Your task to perform on an android device: delete location history Image 0: 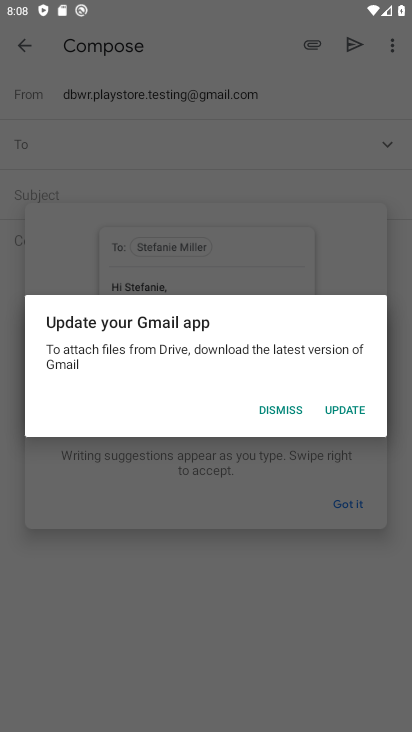
Step 0: press home button
Your task to perform on an android device: delete location history Image 1: 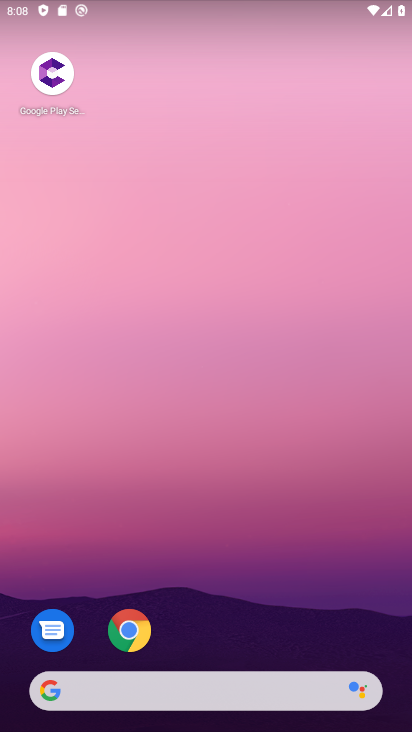
Step 1: drag from (195, 343) to (314, 0)
Your task to perform on an android device: delete location history Image 2: 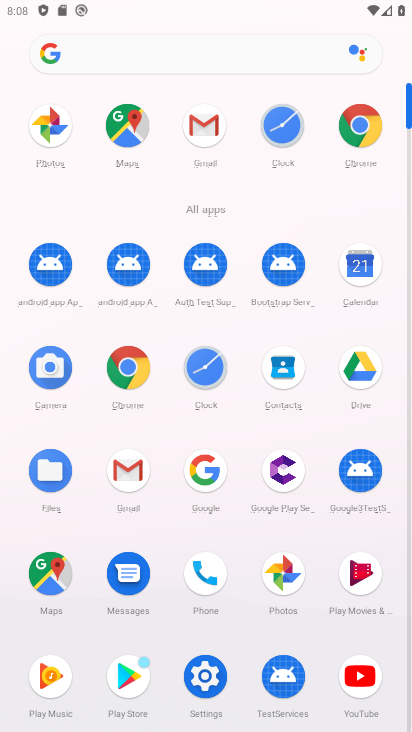
Step 2: click (272, 224)
Your task to perform on an android device: delete location history Image 3: 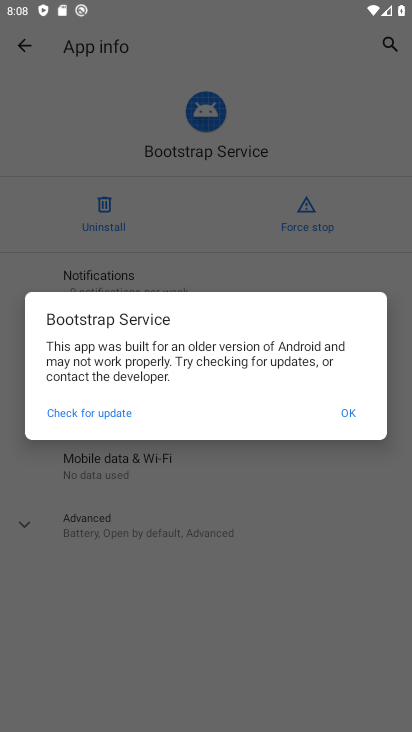
Step 3: press home button
Your task to perform on an android device: delete location history Image 4: 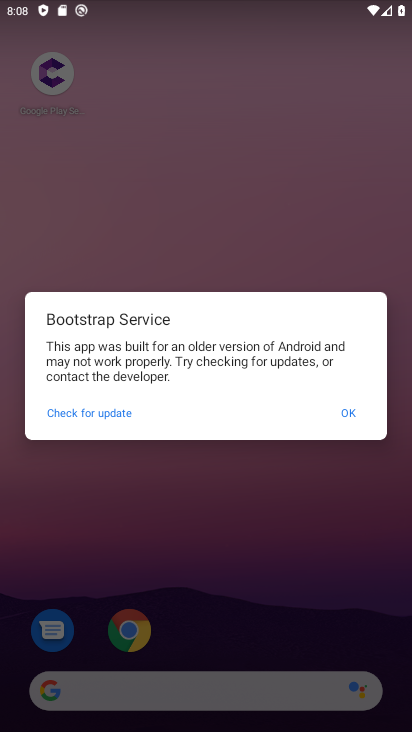
Step 4: click (342, 409)
Your task to perform on an android device: delete location history Image 5: 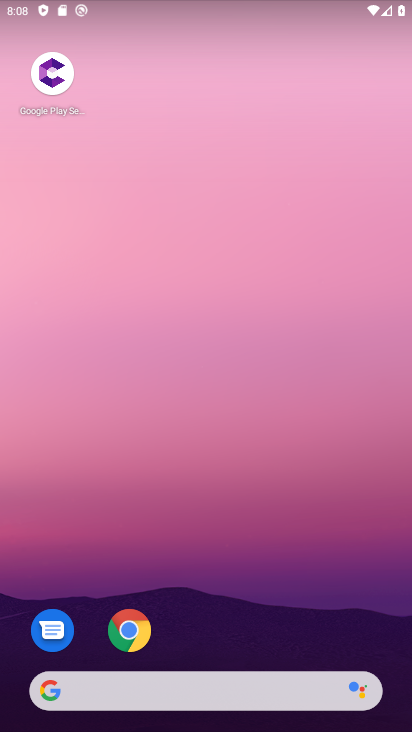
Step 5: drag from (229, 513) to (231, 94)
Your task to perform on an android device: delete location history Image 6: 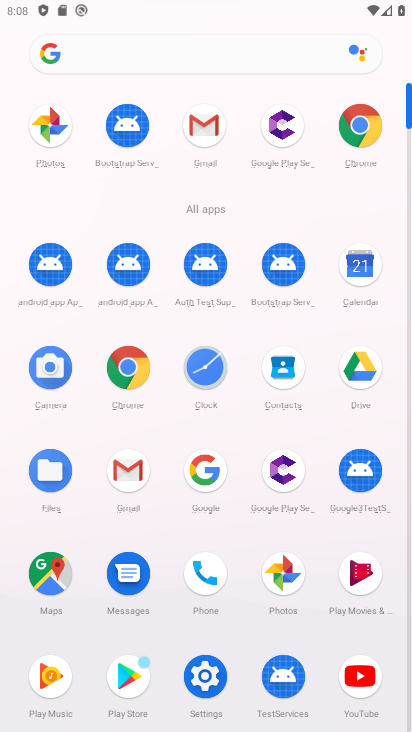
Step 6: click (54, 556)
Your task to perform on an android device: delete location history Image 7: 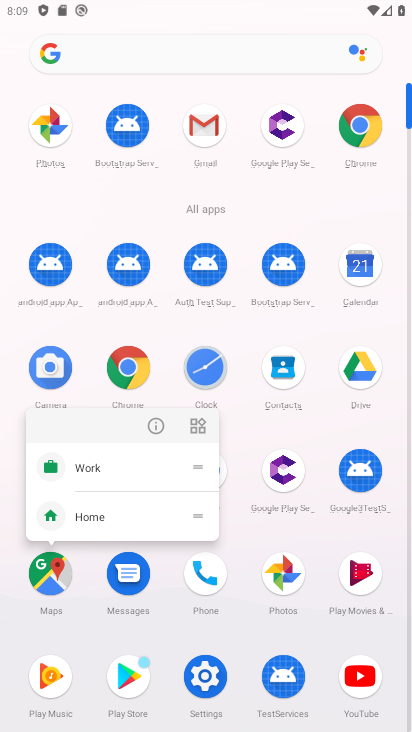
Step 7: click (60, 581)
Your task to perform on an android device: delete location history Image 8: 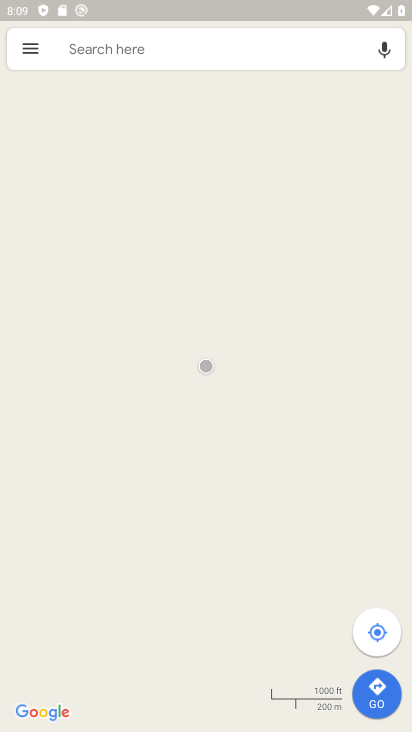
Step 8: click (21, 46)
Your task to perform on an android device: delete location history Image 9: 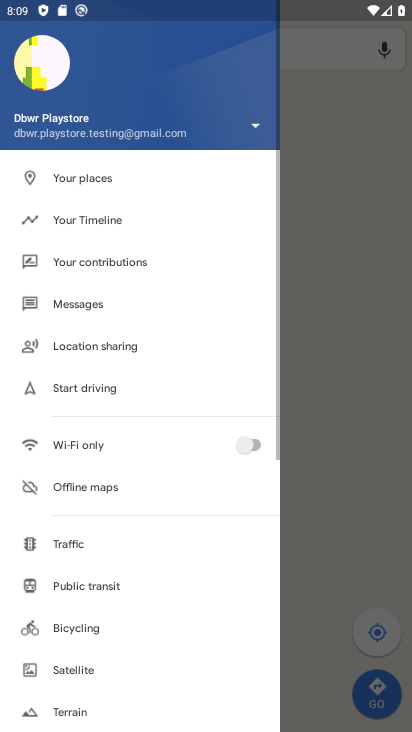
Step 9: click (98, 221)
Your task to perform on an android device: delete location history Image 10: 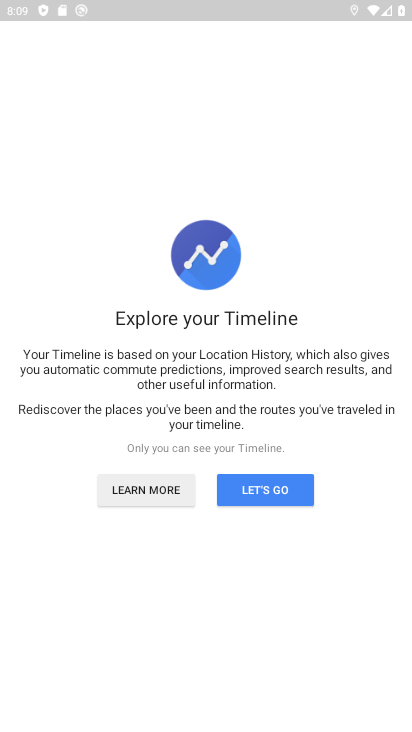
Step 10: click (251, 483)
Your task to perform on an android device: delete location history Image 11: 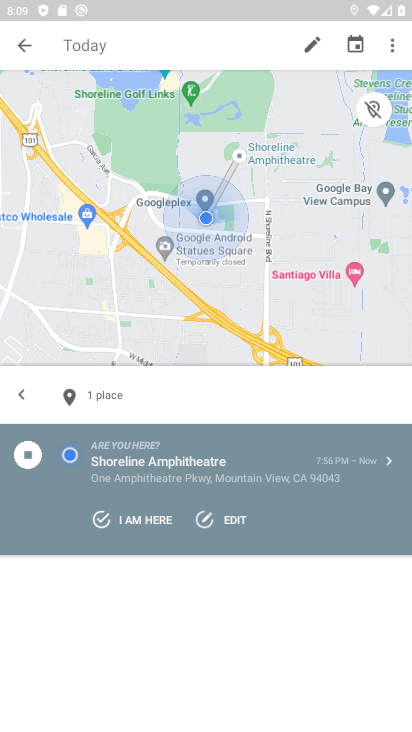
Step 11: click (396, 44)
Your task to perform on an android device: delete location history Image 12: 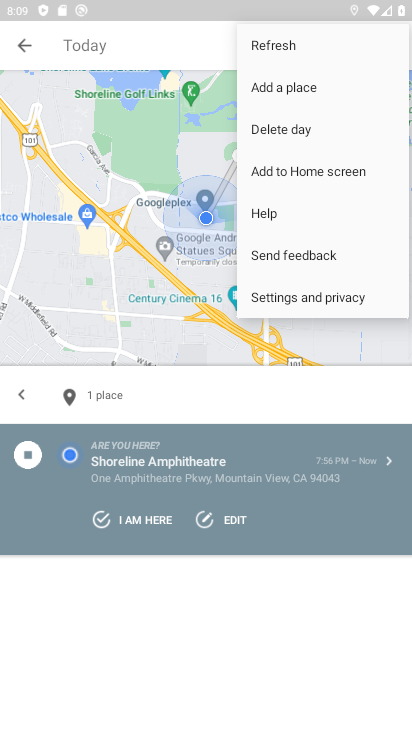
Step 12: click (296, 297)
Your task to perform on an android device: delete location history Image 13: 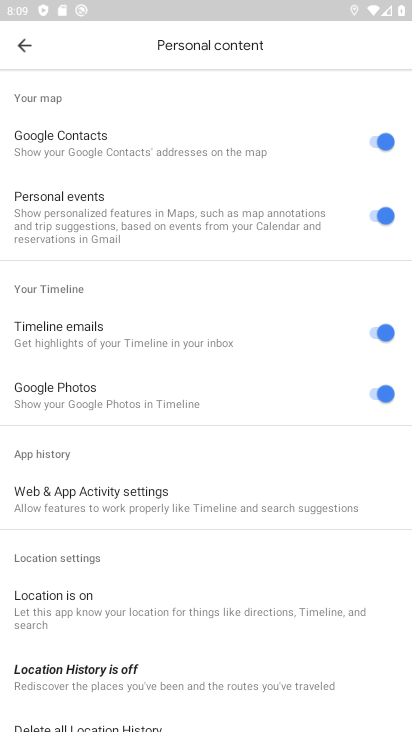
Step 13: drag from (126, 563) to (167, 298)
Your task to perform on an android device: delete location history Image 14: 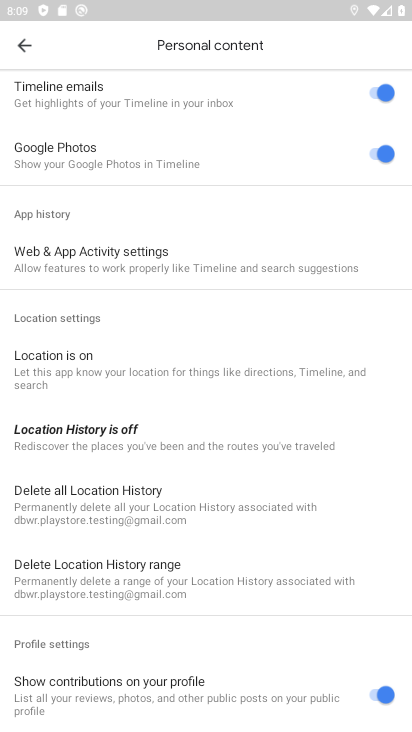
Step 14: drag from (119, 565) to (157, 344)
Your task to perform on an android device: delete location history Image 15: 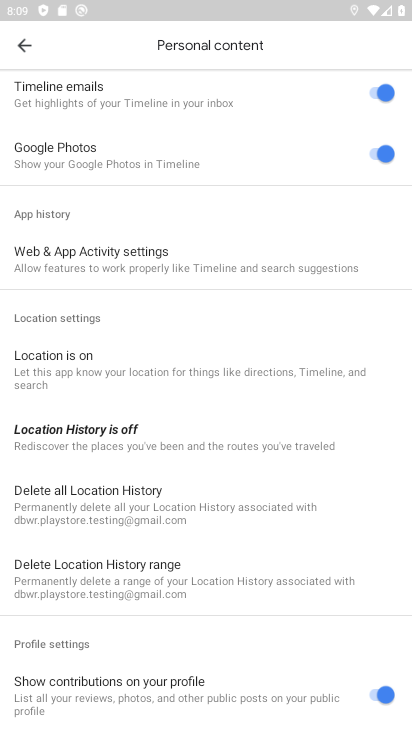
Step 15: click (126, 506)
Your task to perform on an android device: delete location history Image 16: 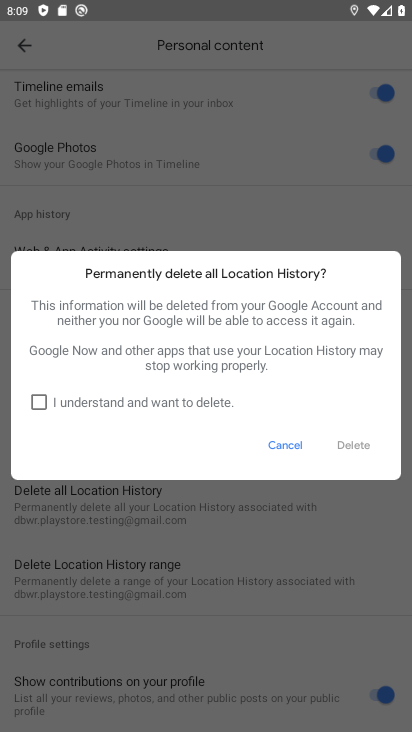
Step 16: click (54, 408)
Your task to perform on an android device: delete location history Image 17: 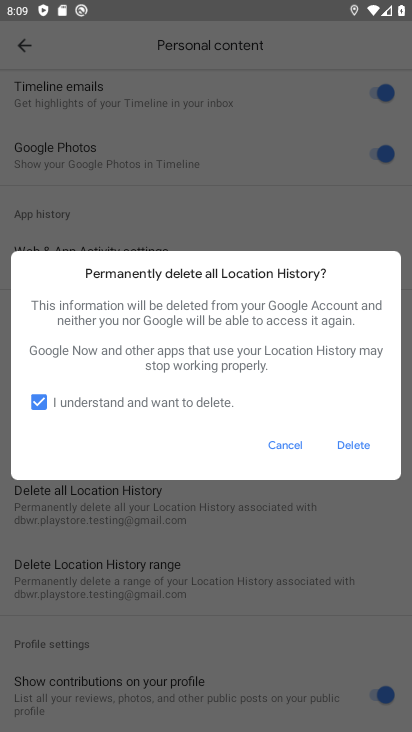
Step 17: click (365, 446)
Your task to perform on an android device: delete location history Image 18: 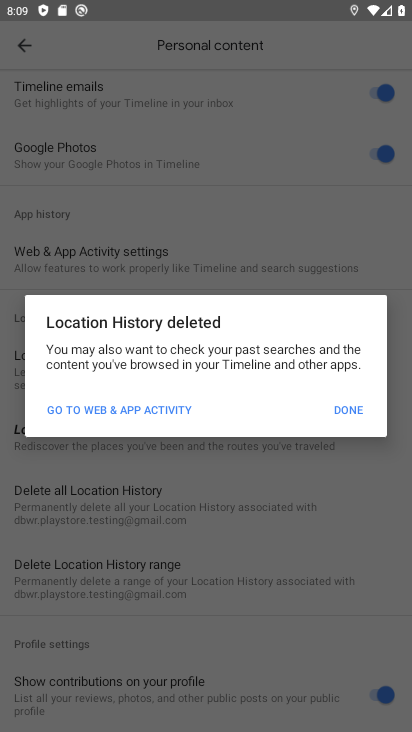
Step 18: click (346, 401)
Your task to perform on an android device: delete location history Image 19: 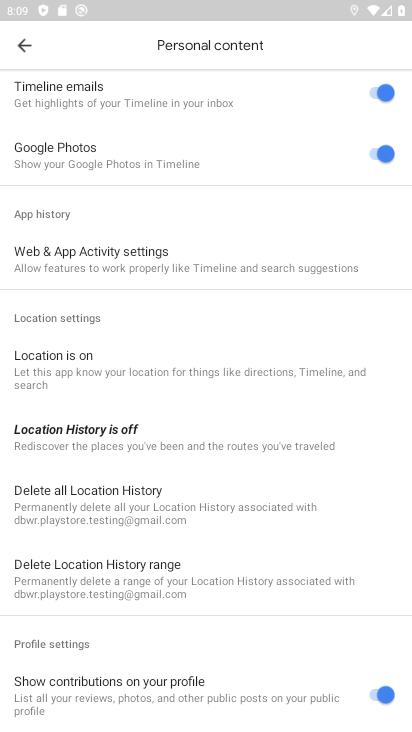
Step 19: task complete